Your task to perform on an android device: add a label to a message in the gmail app Image 0: 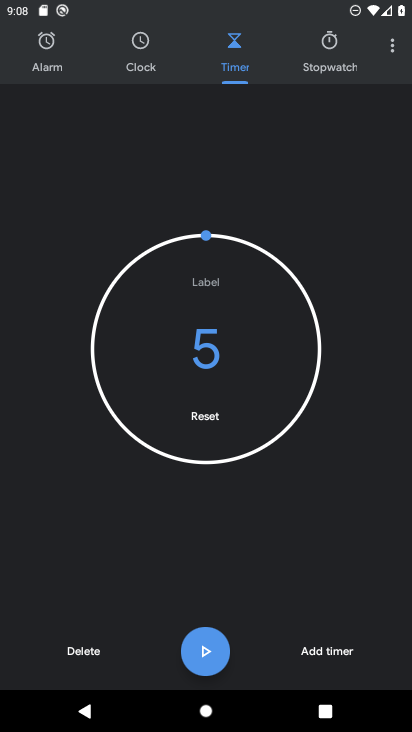
Step 0: press home button
Your task to perform on an android device: add a label to a message in the gmail app Image 1: 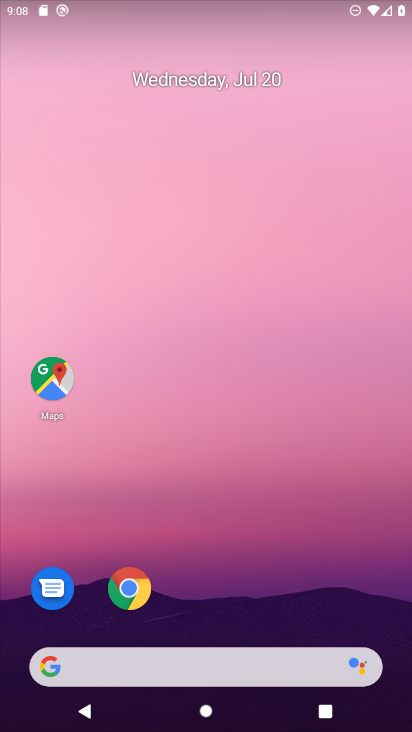
Step 1: drag from (180, 604) to (207, 85)
Your task to perform on an android device: add a label to a message in the gmail app Image 2: 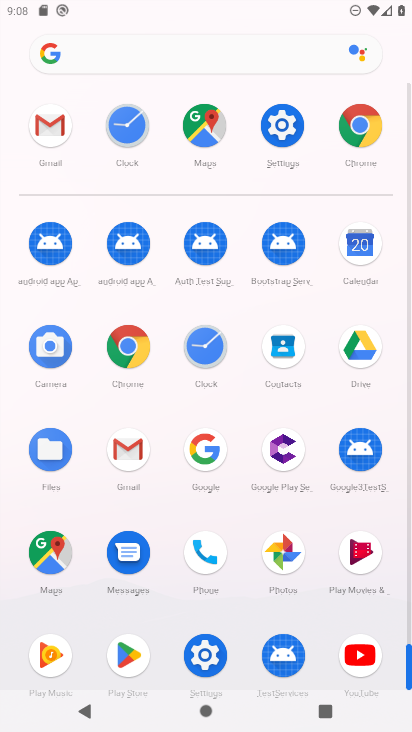
Step 2: click (50, 116)
Your task to perform on an android device: add a label to a message in the gmail app Image 3: 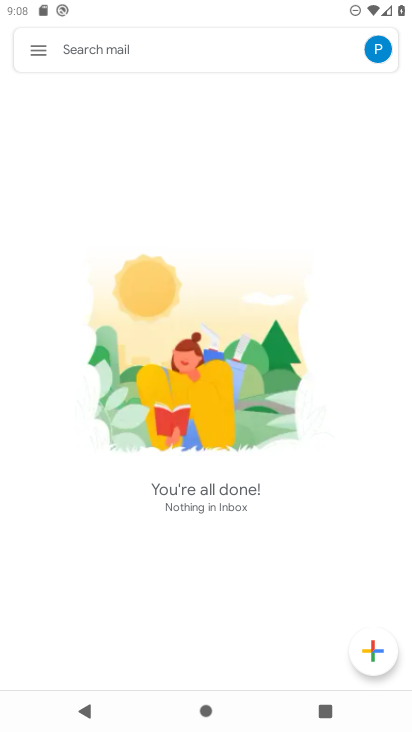
Step 3: task complete